Your task to perform on an android device: empty trash in google photos Image 0: 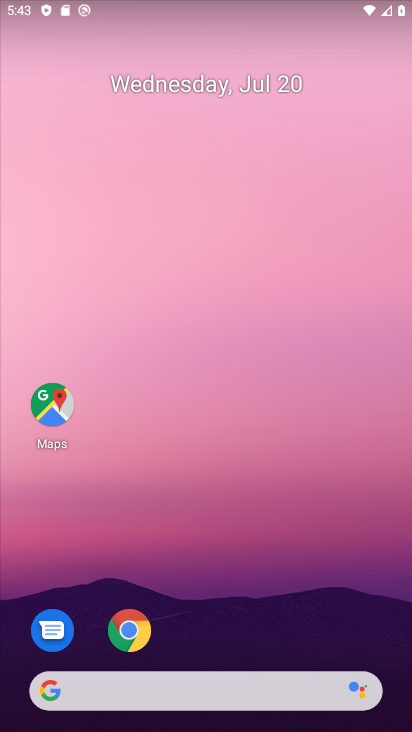
Step 0: drag from (346, 691) to (353, 16)
Your task to perform on an android device: empty trash in google photos Image 1: 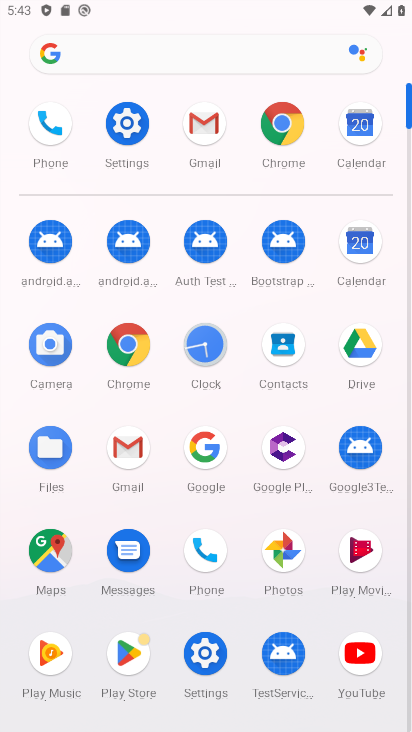
Step 1: click (292, 554)
Your task to perform on an android device: empty trash in google photos Image 2: 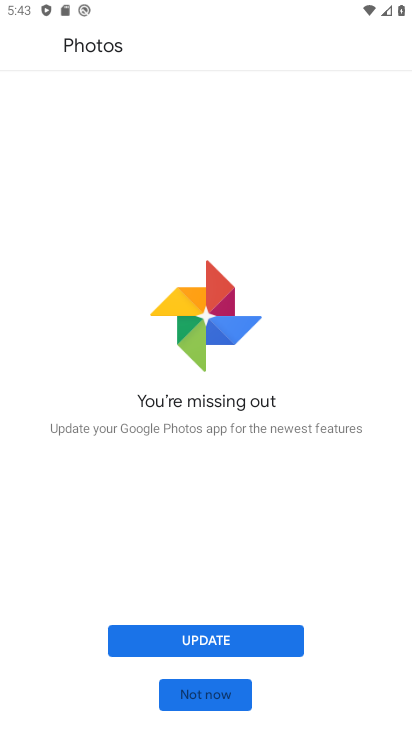
Step 2: click (237, 643)
Your task to perform on an android device: empty trash in google photos Image 3: 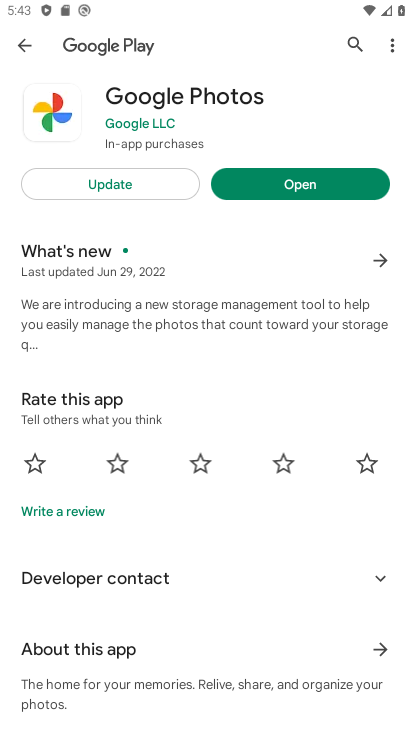
Step 3: click (159, 193)
Your task to perform on an android device: empty trash in google photos Image 4: 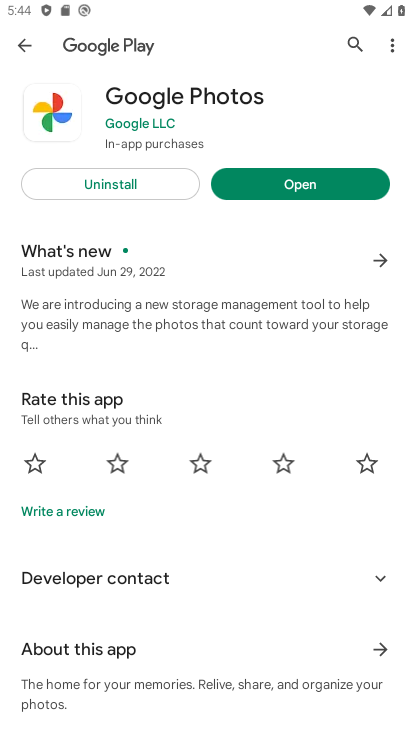
Step 4: click (332, 182)
Your task to perform on an android device: empty trash in google photos Image 5: 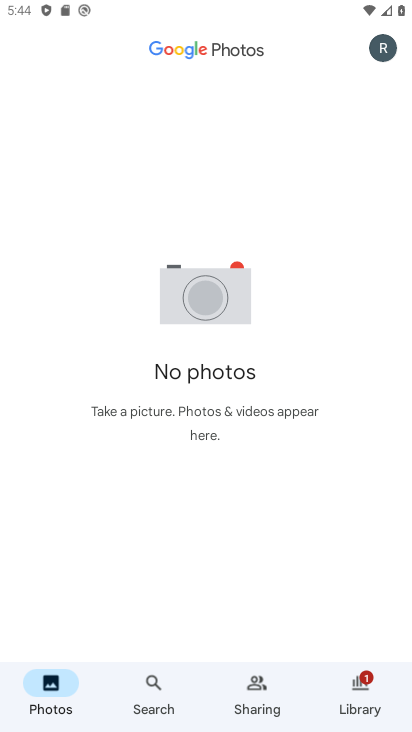
Step 5: click (389, 46)
Your task to perform on an android device: empty trash in google photos Image 6: 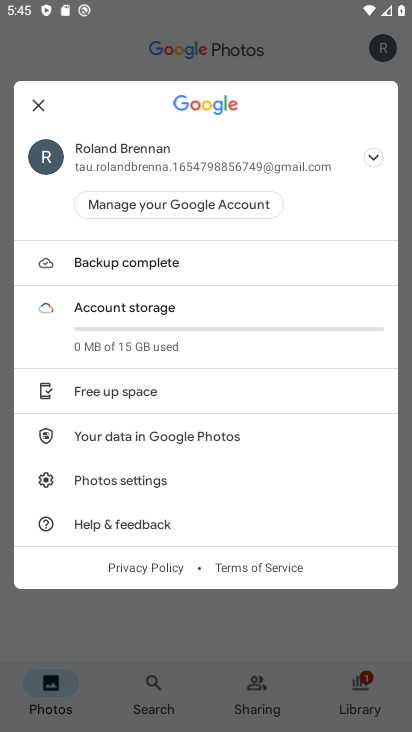
Step 6: click (263, 643)
Your task to perform on an android device: empty trash in google photos Image 7: 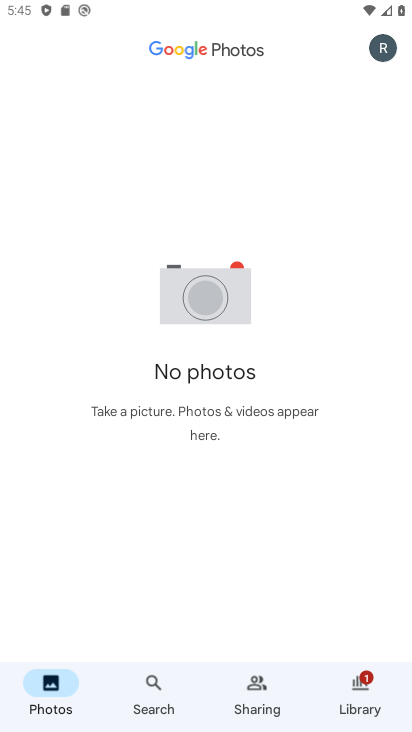
Step 7: click (362, 687)
Your task to perform on an android device: empty trash in google photos Image 8: 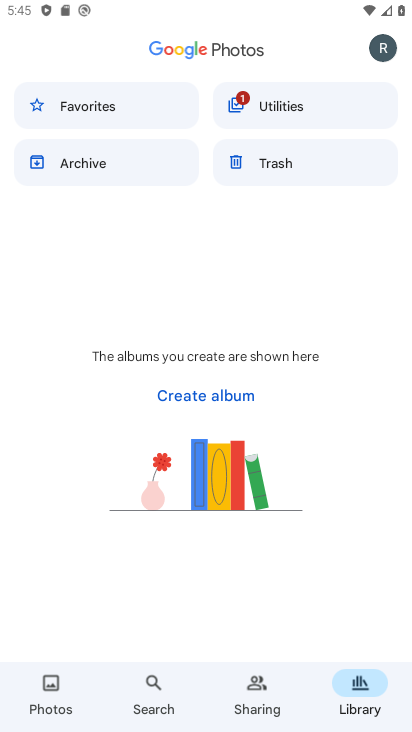
Step 8: click (281, 164)
Your task to perform on an android device: empty trash in google photos Image 9: 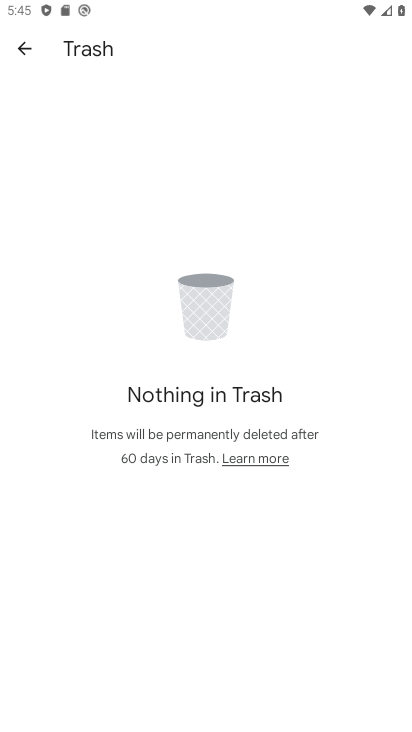
Step 9: task complete